Your task to perform on an android device: Toggle the flashlight Image 0: 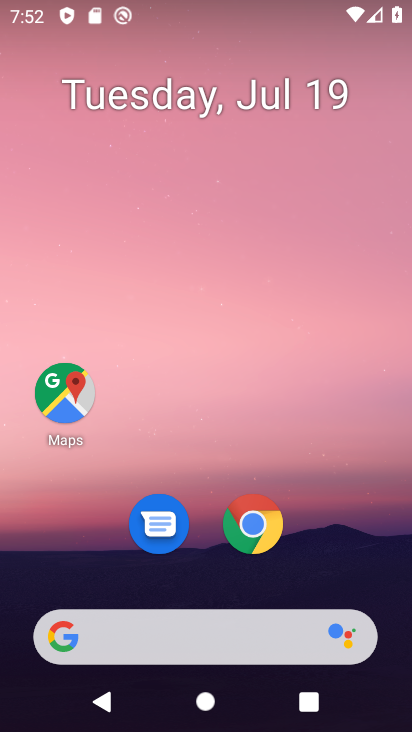
Step 0: drag from (322, 553) to (318, 46)
Your task to perform on an android device: Toggle the flashlight Image 1: 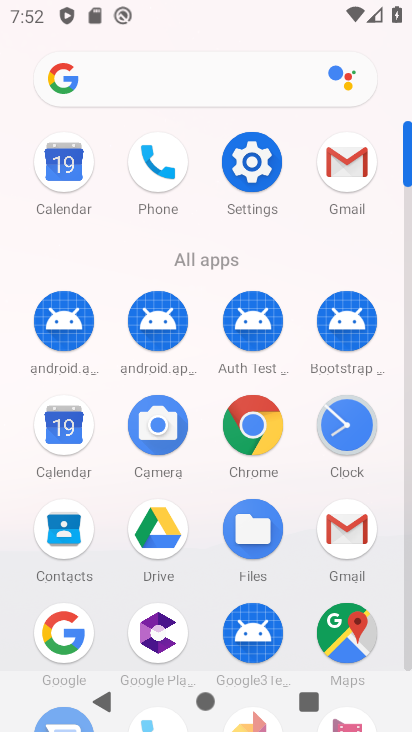
Step 1: click (263, 160)
Your task to perform on an android device: Toggle the flashlight Image 2: 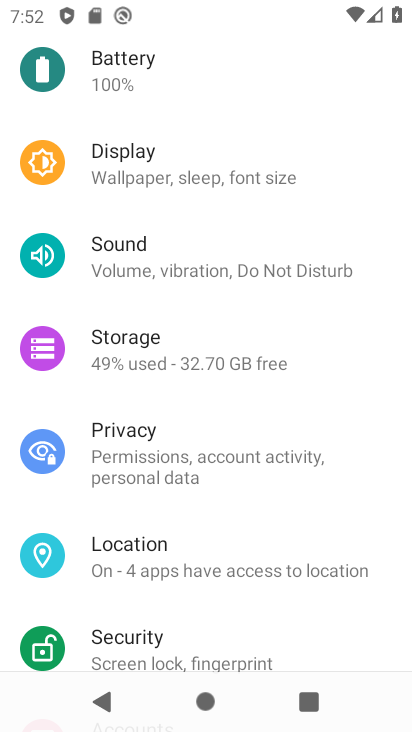
Step 2: drag from (263, 160) to (239, 572)
Your task to perform on an android device: Toggle the flashlight Image 3: 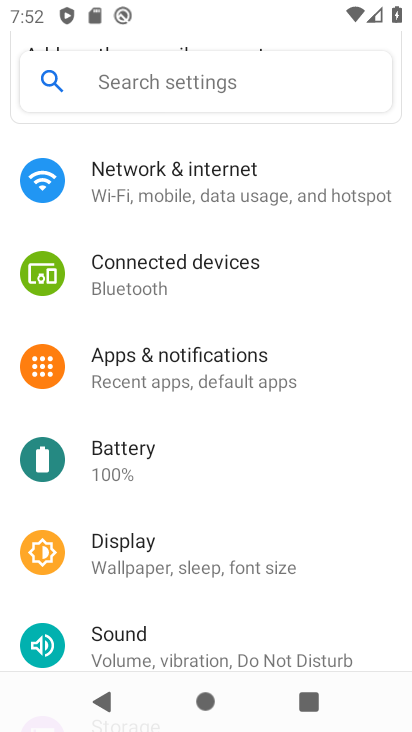
Step 3: drag from (256, 214) to (257, 580)
Your task to perform on an android device: Toggle the flashlight Image 4: 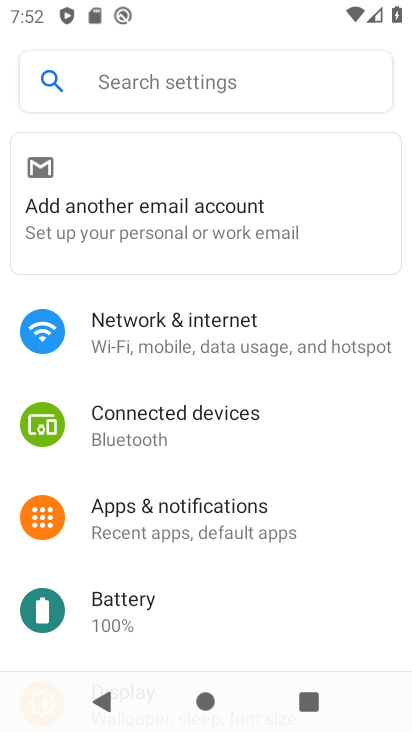
Step 4: click (286, 77)
Your task to perform on an android device: Toggle the flashlight Image 5: 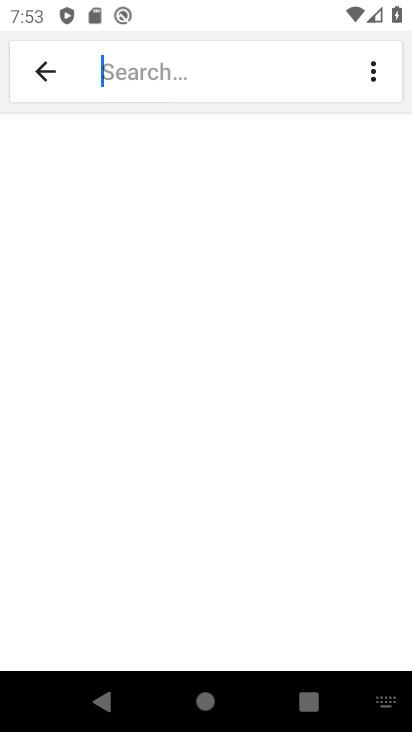
Step 5: type "Flashlight"
Your task to perform on an android device: Toggle the flashlight Image 6: 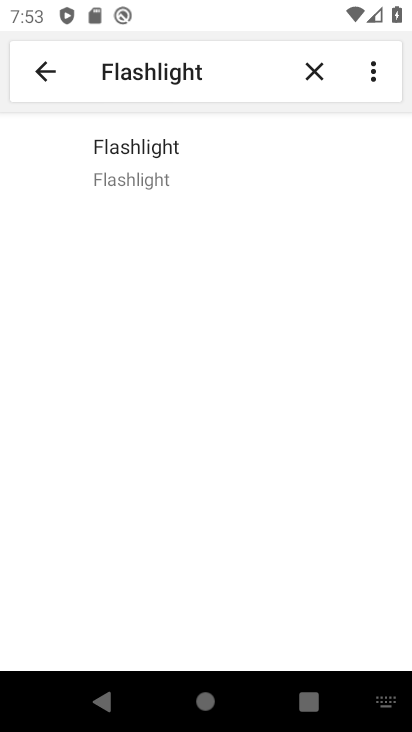
Step 6: click (136, 165)
Your task to perform on an android device: Toggle the flashlight Image 7: 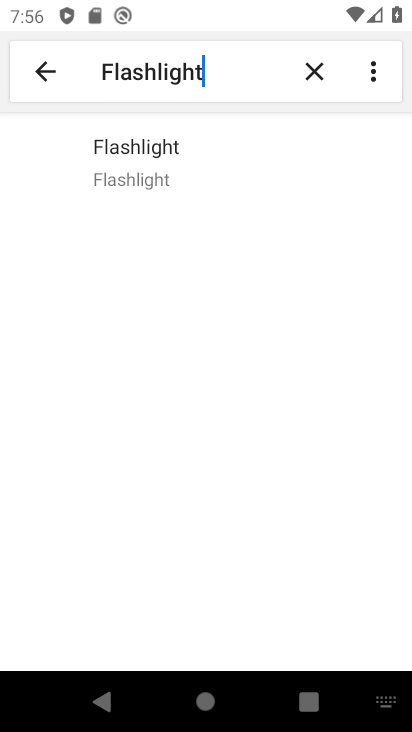
Step 7: task complete